Your task to perform on an android device: install app "Adobe Express: Graphic Design" Image 0: 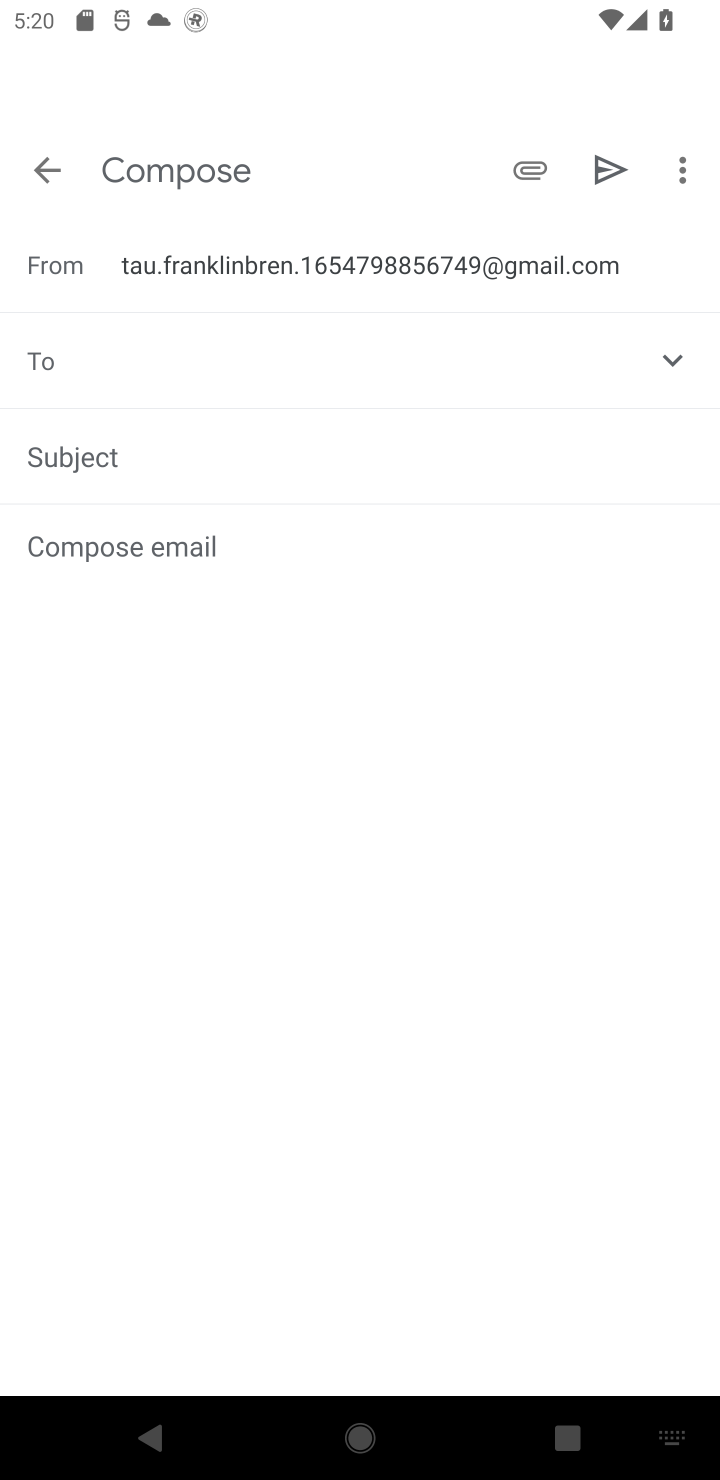
Step 0: press home button
Your task to perform on an android device: install app "Adobe Express: Graphic Design" Image 1: 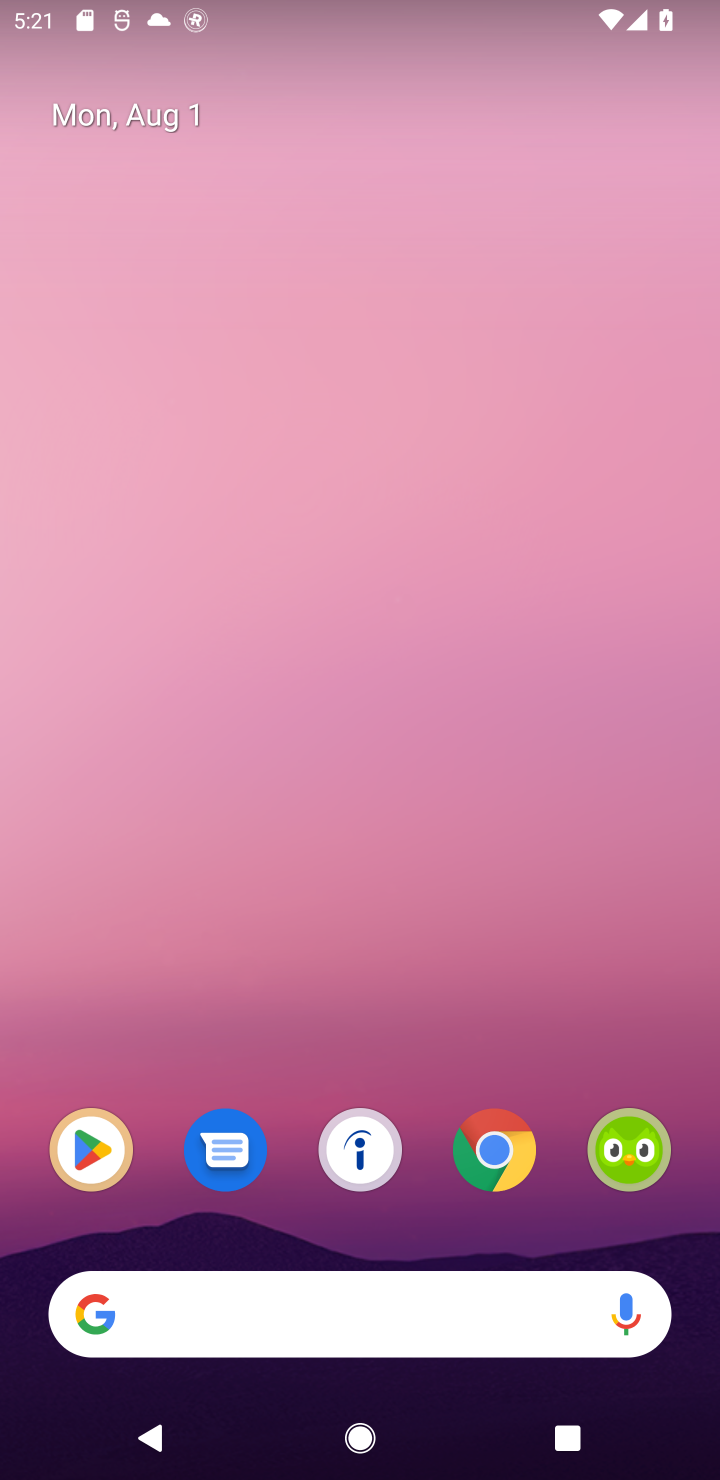
Step 1: click (81, 1162)
Your task to perform on an android device: install app "Adobe Express: Graphic Design" Image 2: 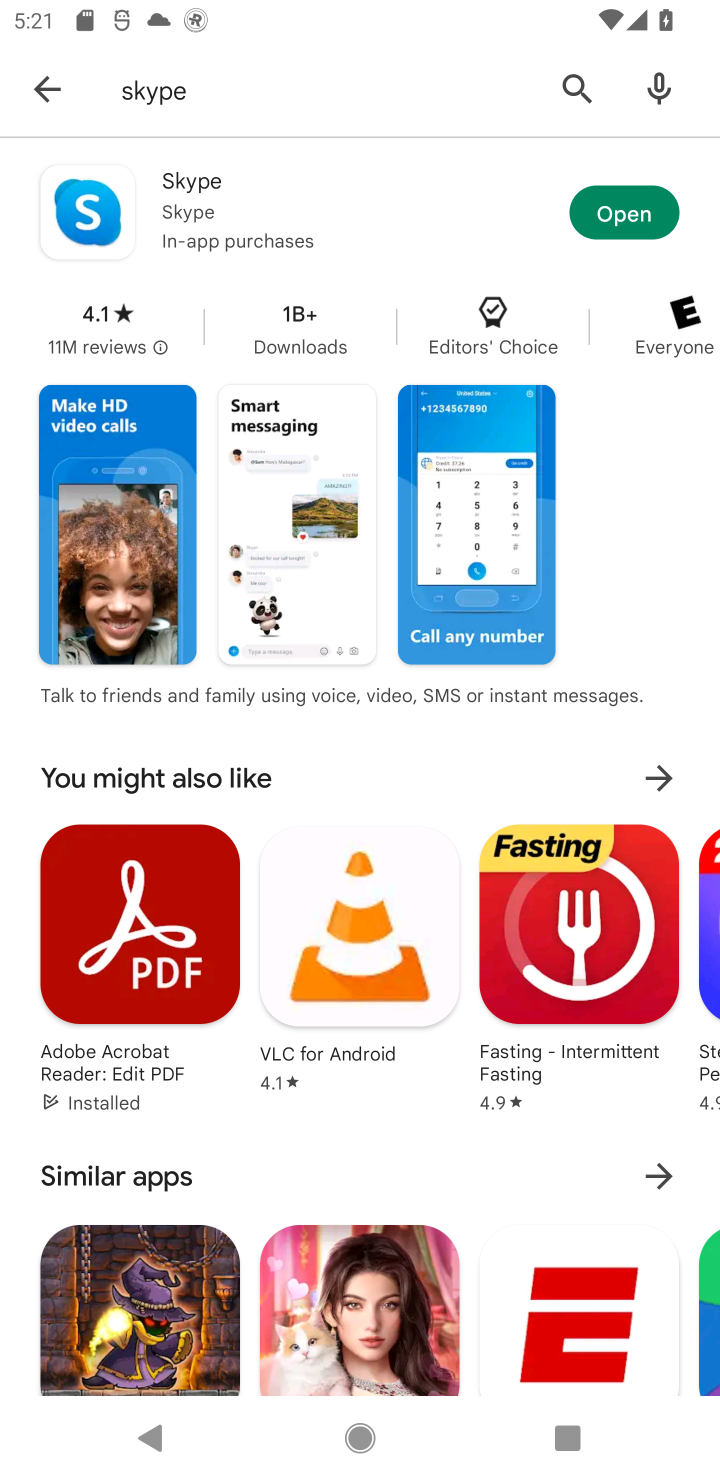
Step 2: click (591, 94)
Your task to perform on an android device: install app "Adobe Express: Graphic Design" Image 3: 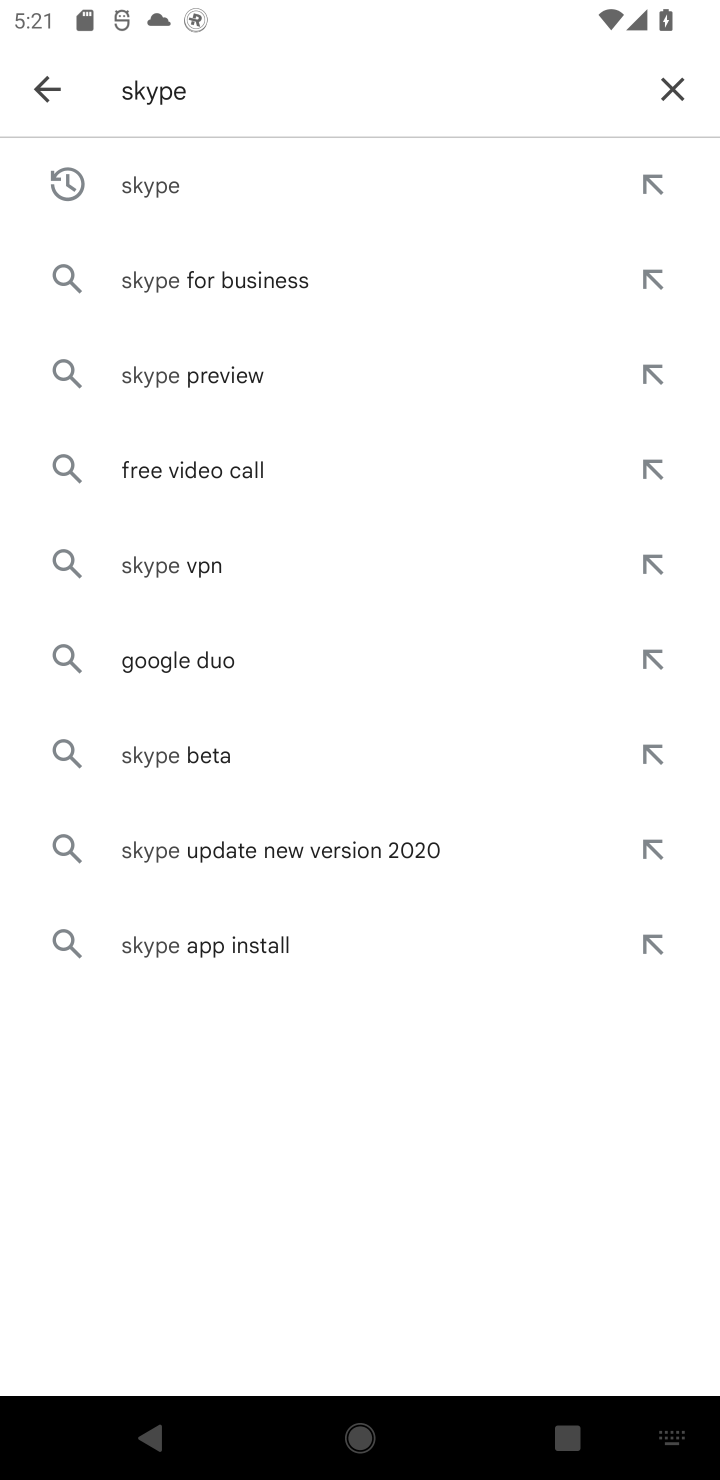
Step 3: click (649, 94)
Your task to perform on an android device: install app "Adobe Express: Graphic Design" Image 4: 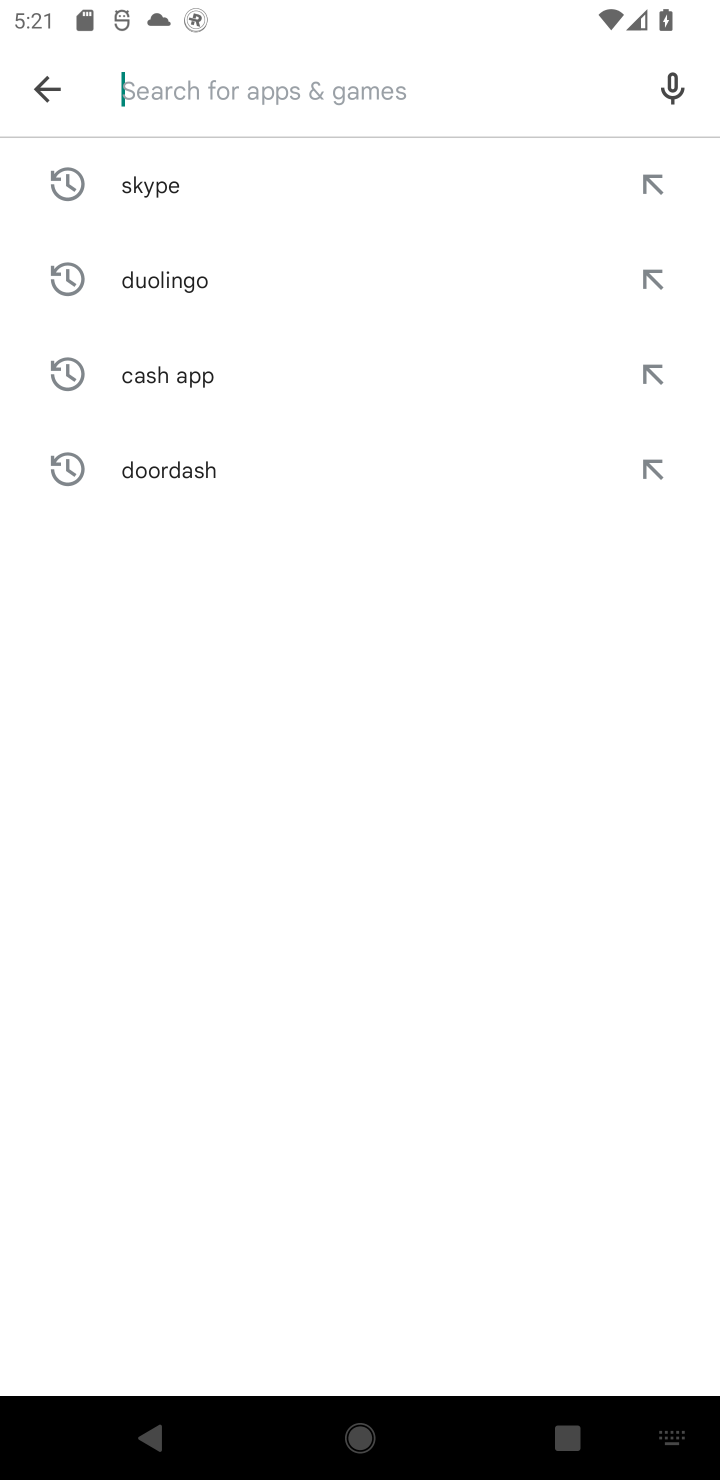
Step 4: type "adobe express"
Your task to perform on an android device: install app "Adobe Express: Graphic Design" Image 5: 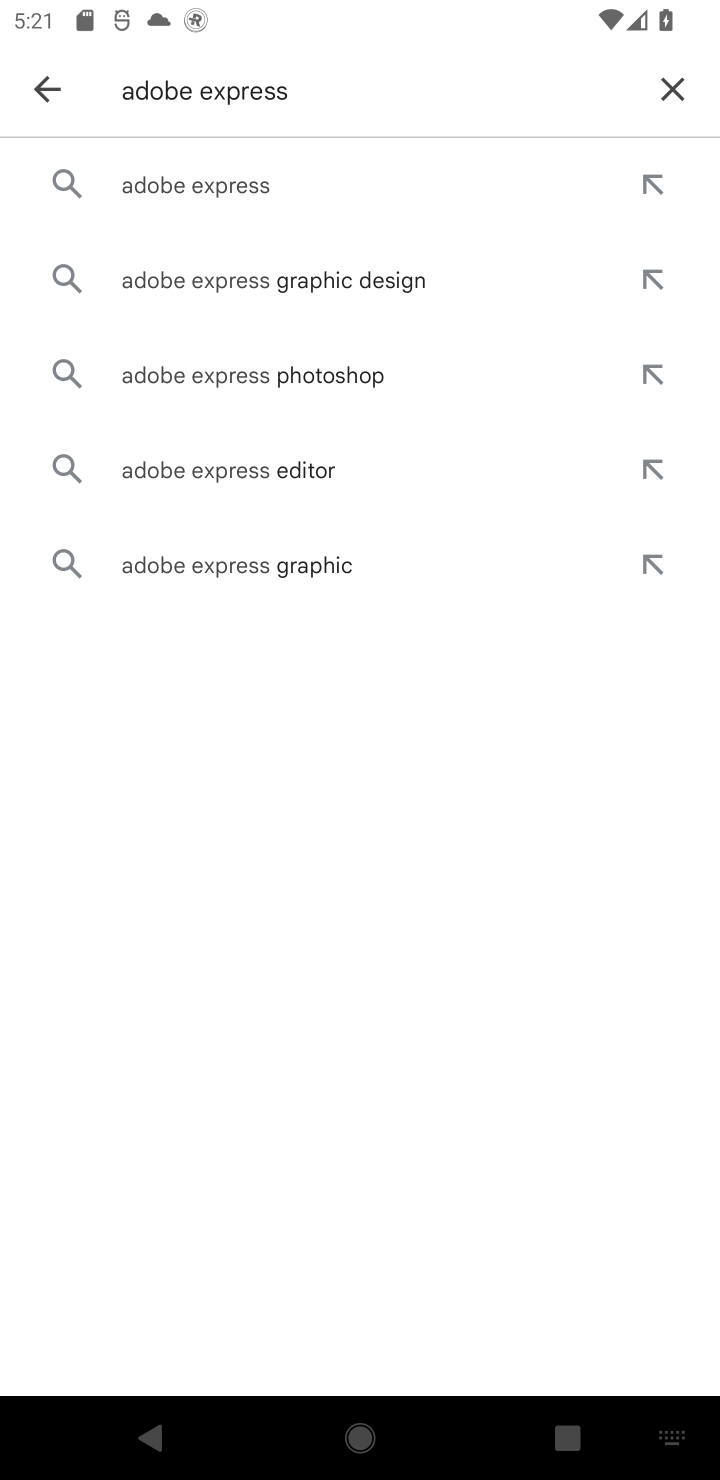
Step 5: click (287, 198)
Your task to perform on an android device: install app "Adobe Express: Graphic Design" Image 6: 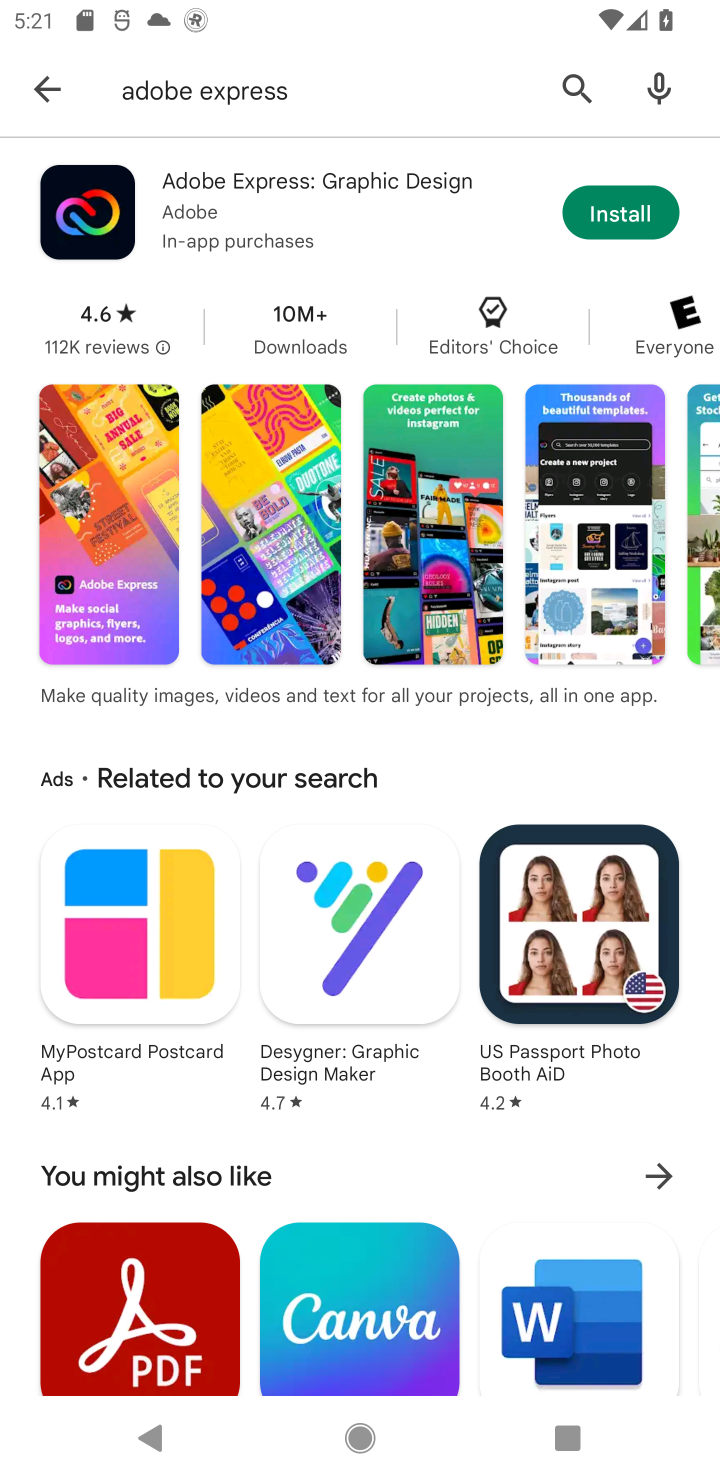
Step 6: click (636, 226)
Your task to perform on an android device: install app "Adobe Express: Graphic Design" Image 7: 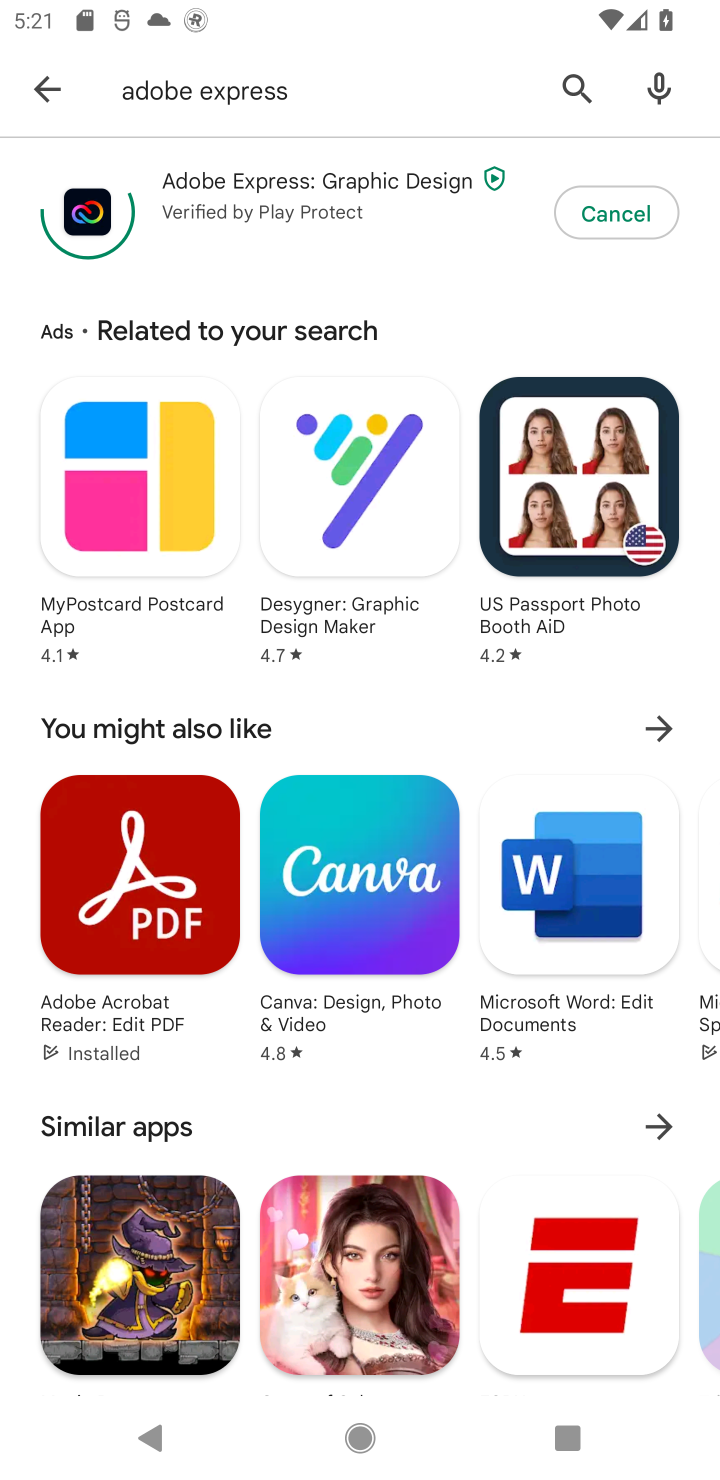
Step 7: task complete